Your task to perform on an android device: Open calendar and show me the third week of next month Image 0: 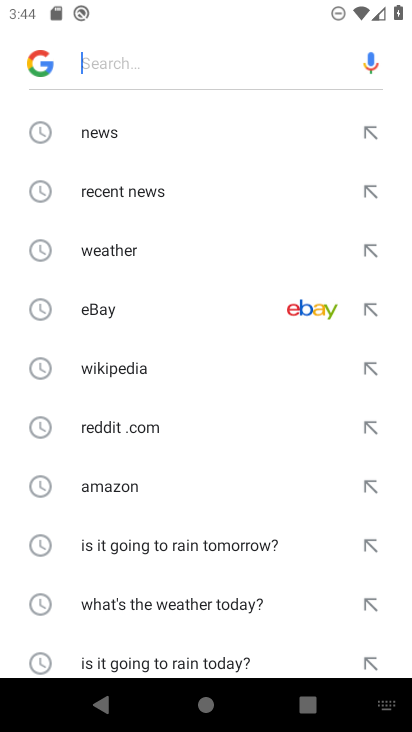
Step 0: press home button
Your task to perform on an android device: Open calendar and show me the third week of next month Image 1: 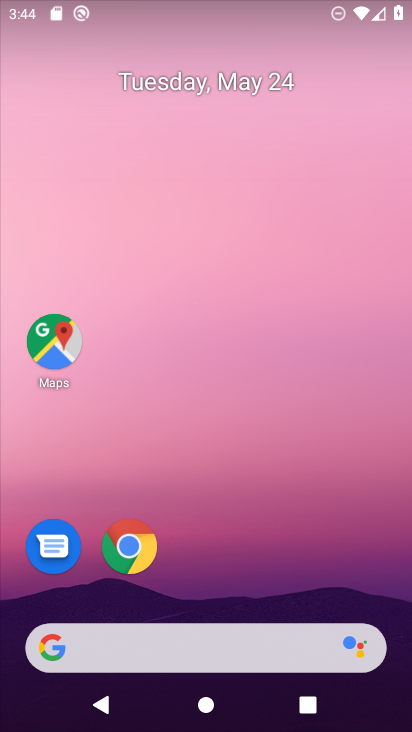
Step 1: drag from (286, 496) to (181, 34)
Your task to perform on an android device: Open calendar and show me the third week of next month Image 2: 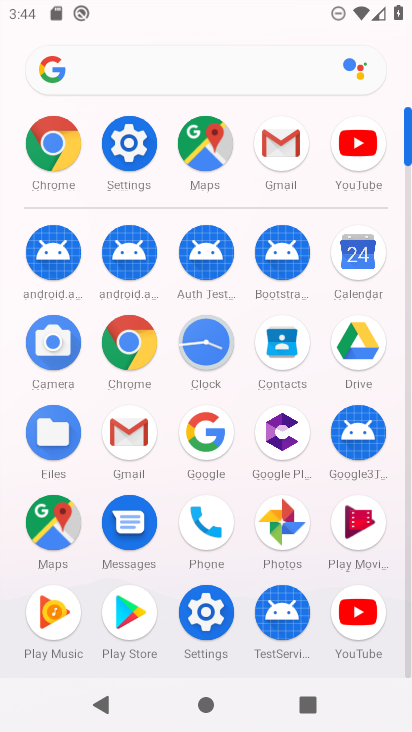
Step 2: click (350, 249)
Your task to perform on an android device: Open calendar and show me the third week of next month Image 3: 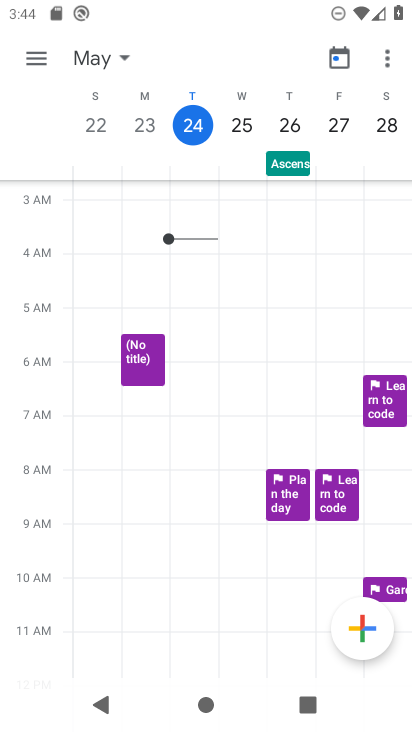
Step 3: click (113, 54)
Your task to perform on an android device: Open calendar and show me the third week of next month Image 4: 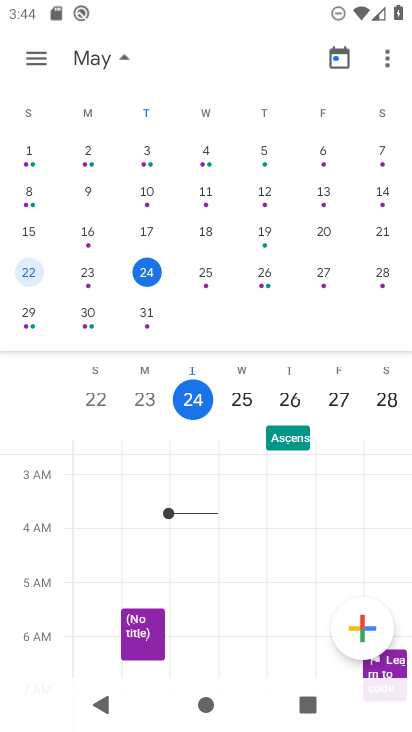
Step 4: drag from (354, 233) to (41, 177)
Your task to perform on an android device: Open calendar and show me the third week of next month Image 5: 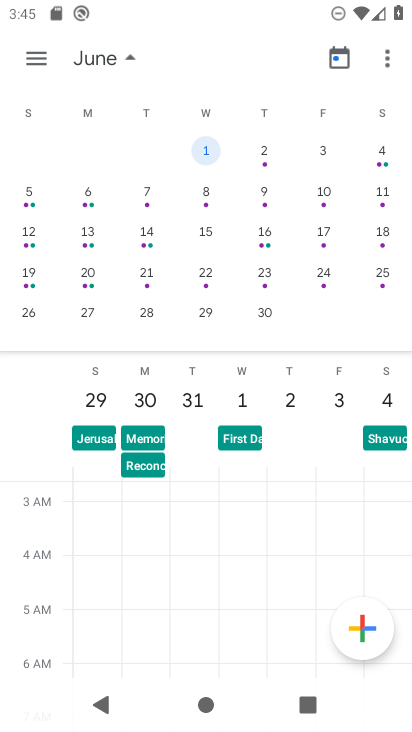
Step 5: click (23, 259)
Your task to perform on an android device: Open calendar and show me the third week of next month Image 6: 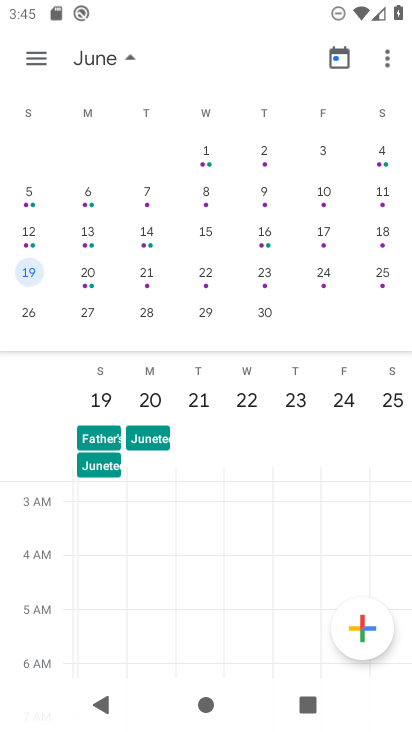
Step 6: click (27, 236)
Your task to perform on an android device: Open calendar and show me the third week of next month Image 7: 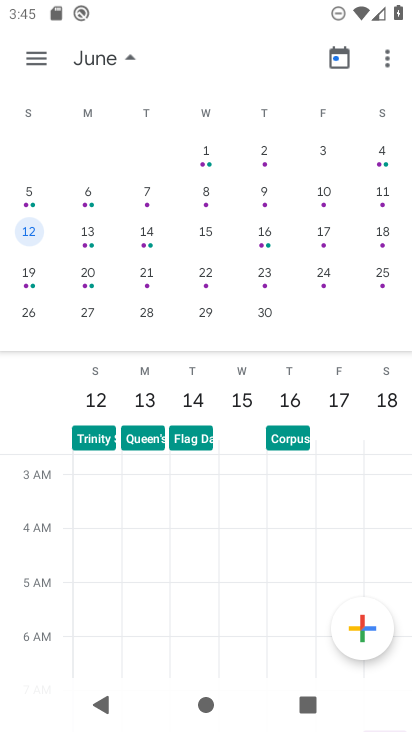
Step 7: task complete